Your task to perform on an android device: open chrome and create a bookmark for the current page Image 0: 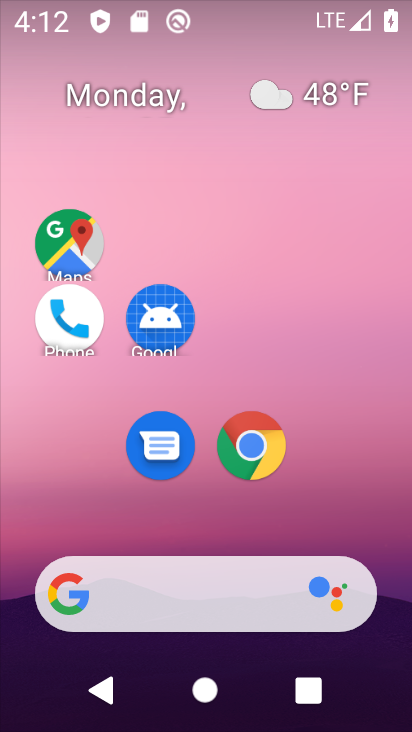
Step 0: click (274, 461)
Your task to perform on an android device: open chrome and create a bookmark for the current page Image 1: 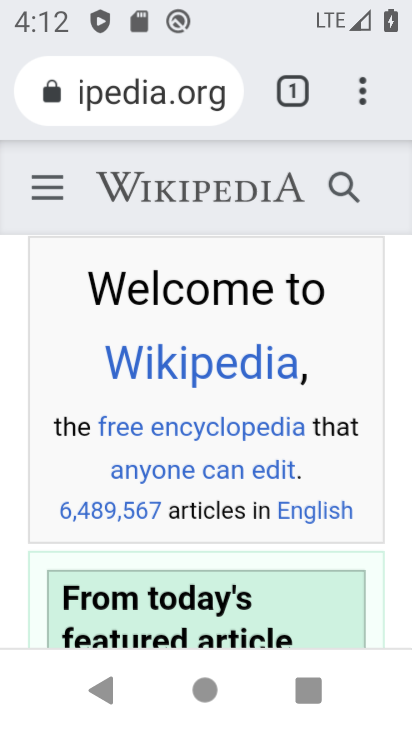
Step 1: click (357, 104)
Your task to perform on an android device: open chrome and create a bookmark for the current page Image 2: 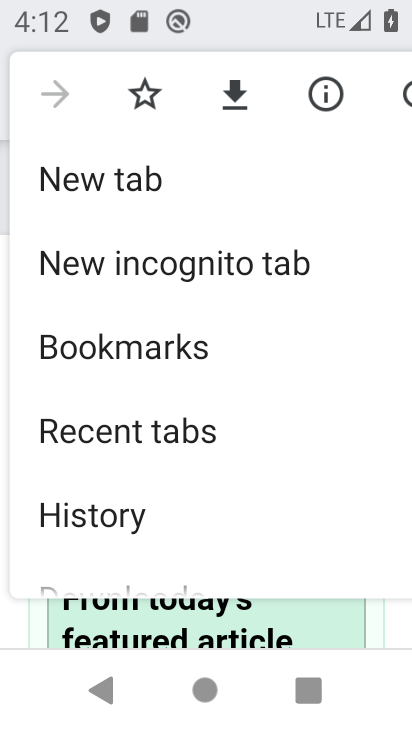
Step 2: click (139, 95)
Your task to perform on an android device: open chrome and create a bookmark for the current page Image 3: 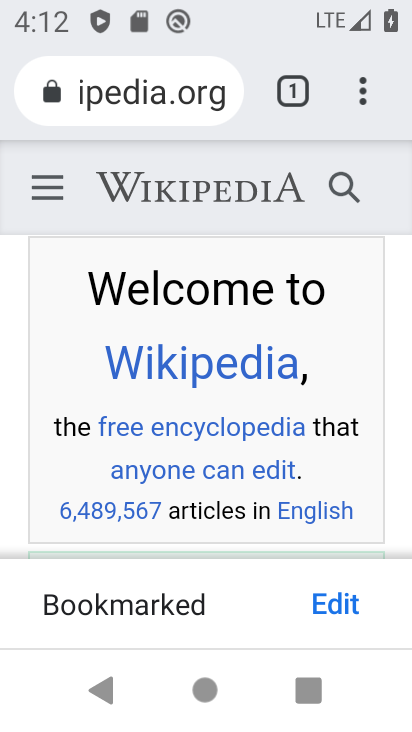
Step 3: task complete